Your task to perform on an android device: Search for pizza restaurants on Maps Image 0: 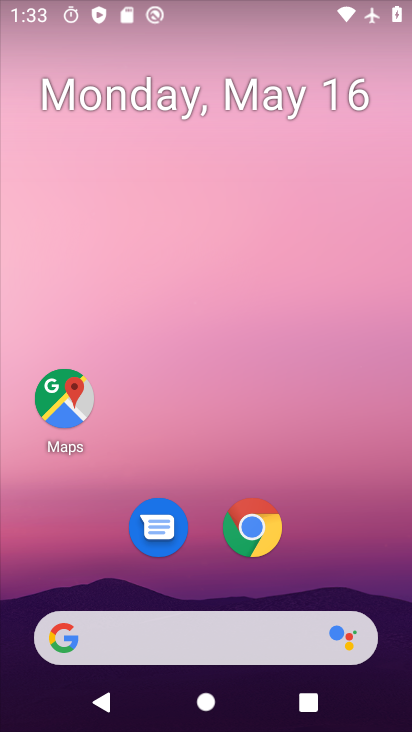
Step 0: press home button
Your task to perform on an android device: Search for pizza restaurants on Maps Image 1: 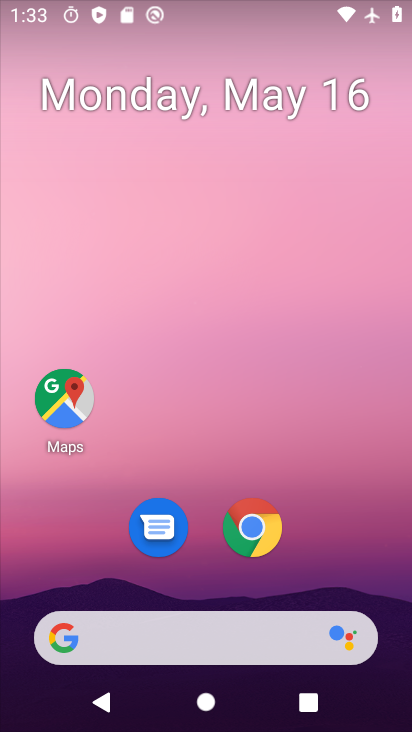
Step 1: click (373, 416)
Your task to perform on an android device: Search for pizza restaurants on Maps Image 2: 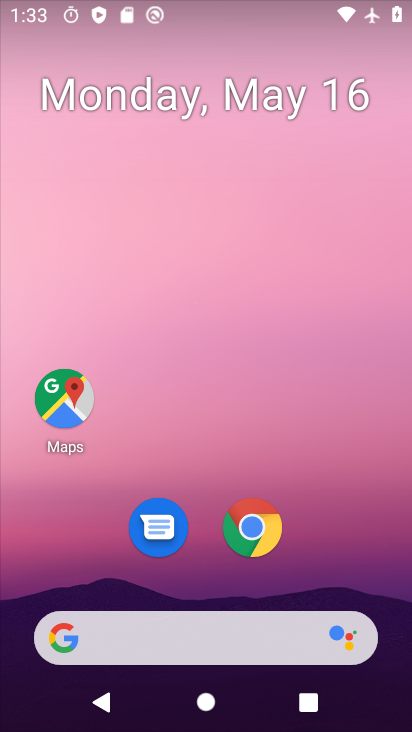
Step 2: click (68, 415)
Your task to perform on an android device: Search for pizza restaurants on Maps Image 3: 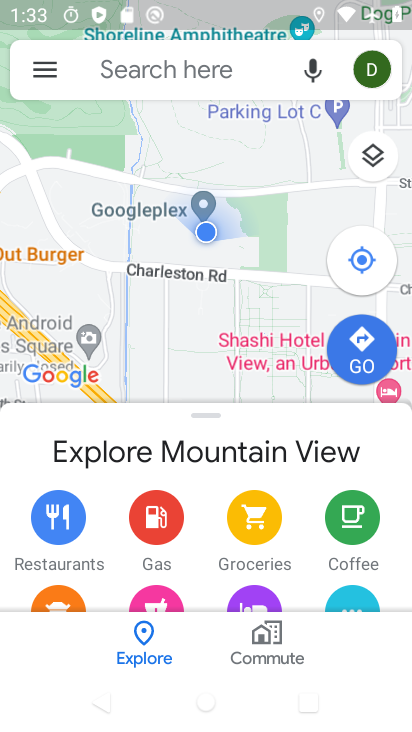
Step 3: click (159, 75)
Your task to perform on an android device: Search for pizza restaurants on Maps Image 4: 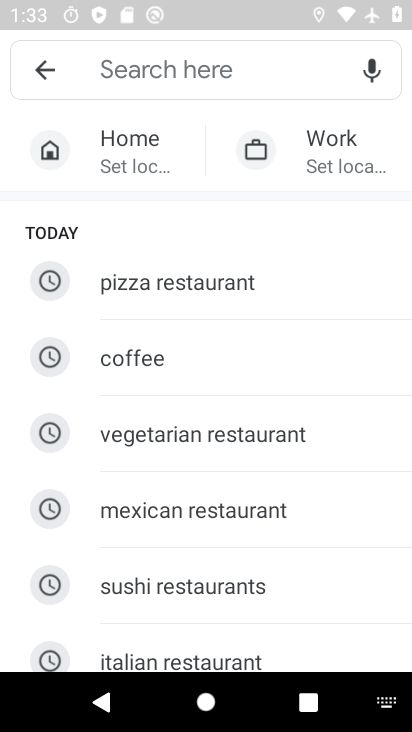
Step 4: click (144, 292)
Your task to perform on an android device: Search for pizza restaurants on Maps Image 5: 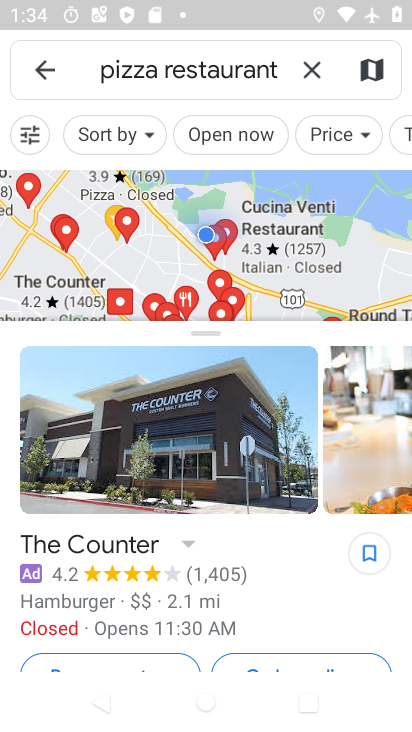
Step 5: task complete